Your task to perform on an android device: refresh tabs in the chrome app Image 0: 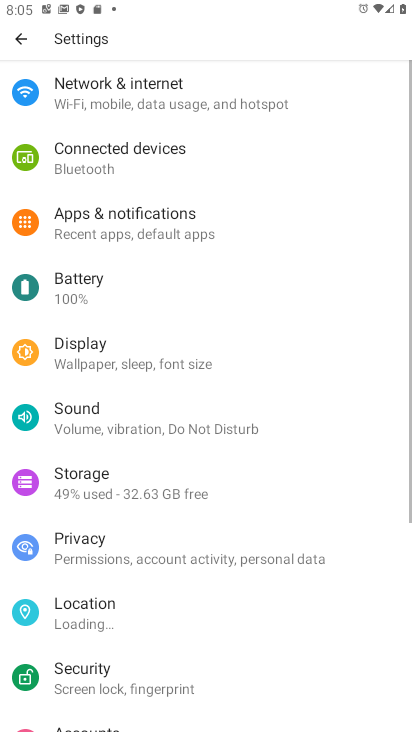
Step 0: press home button
Your task to perform on an android device: refresh tabs in the chrome app Image 1: 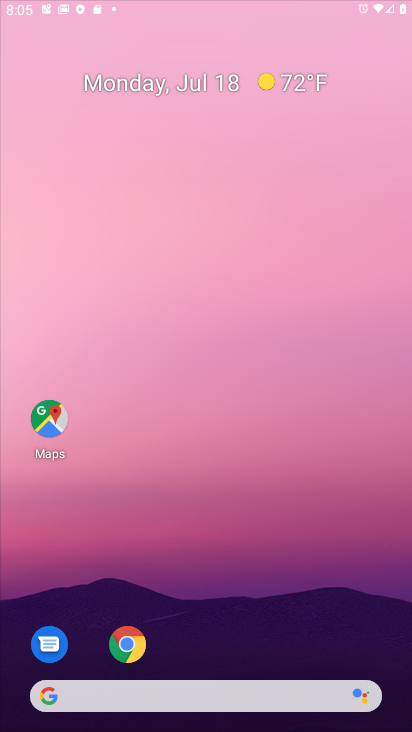
Step 1: drag from (360, 688) to (288, 35)
Your task to perform on an android device: refresh tabs in the chrome app Image 2: 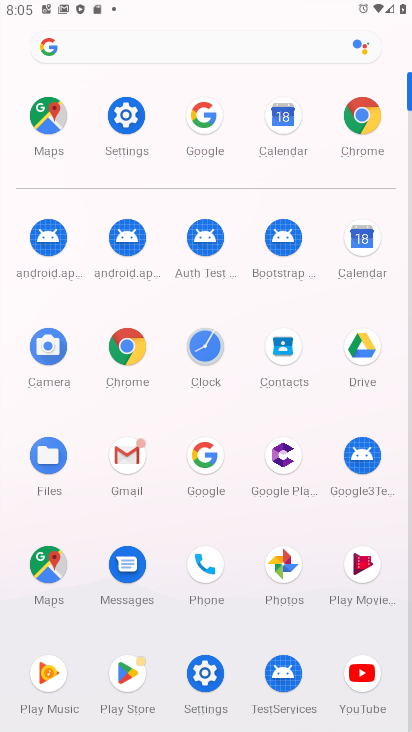
Step 2: click (349, 126)
Your task to perform on an android device: refresh tabs in the chrome app Image 3: 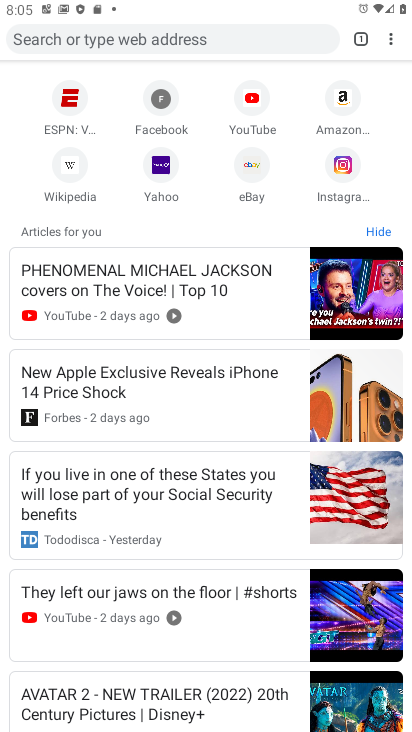
Step 3: click (387, 38)
Your task to perform on an android device: refresh tabs in the chrome app Image 4: 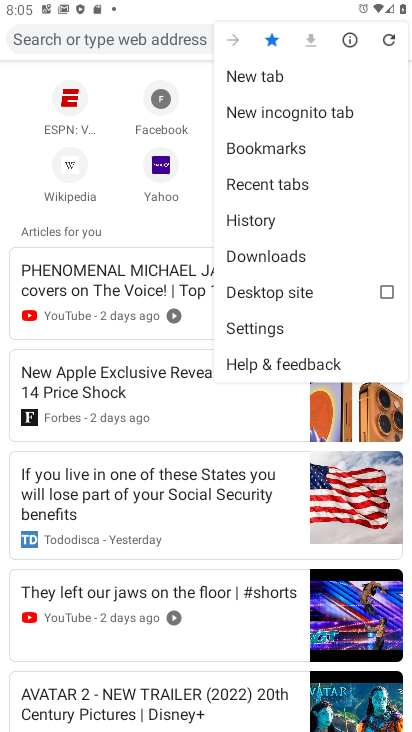
Step 4: click (387, 38)
Your task to perform on an android device: refresh tabs in the chrome app Image 5: 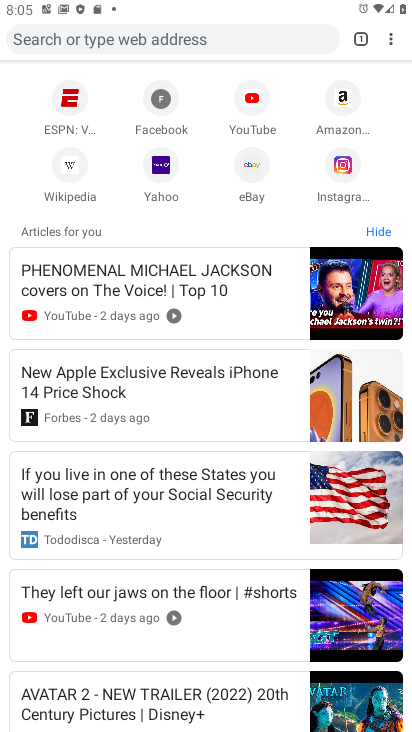
Step 5: task complete